Your task to perform on an android device: Search for Mexican restaurants on Maps Image 0: 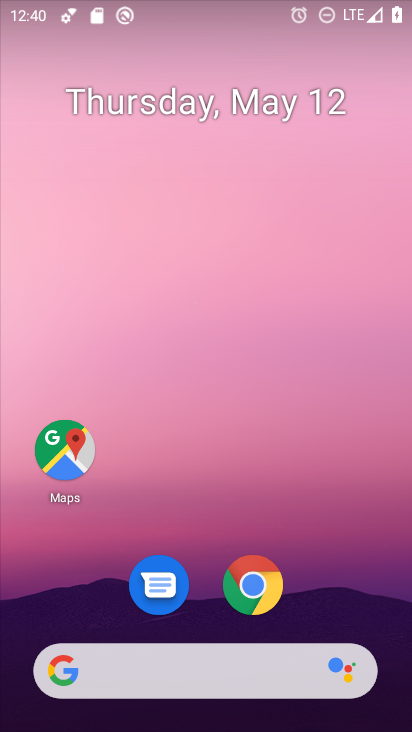
Step 0: click (53, 436)
Your task to perform on an android device: Search for Mexican restaurants on Maps Image 1: 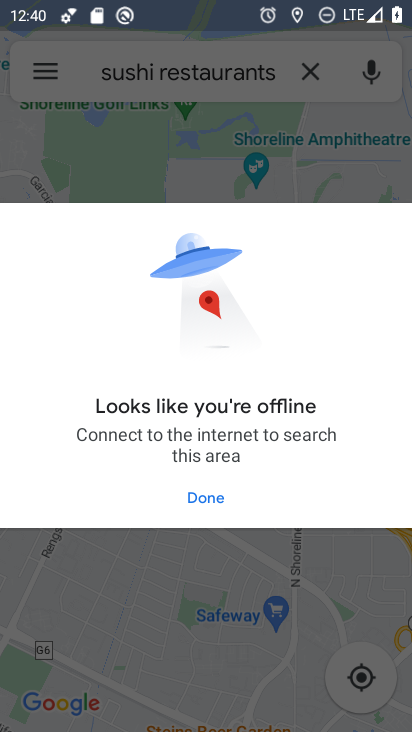
Step 1: click (205, 492)
Your task to perform on an android device: Search for Mexican restaurants on Maps Image 2: 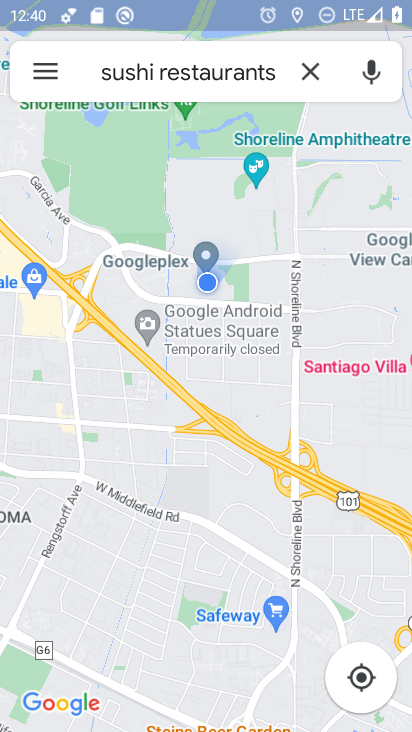
Step 2: click (307, 65)
Your task to perform on an android device: Search for Mexican restaurants on Maps Image 3: 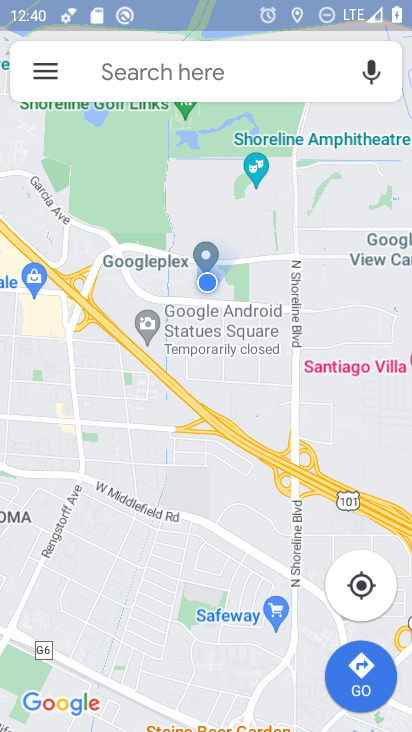
Step 3: click (237, 66)
Your task to perform on an android device: Search for Mexican restaurants on Maps Image 4: 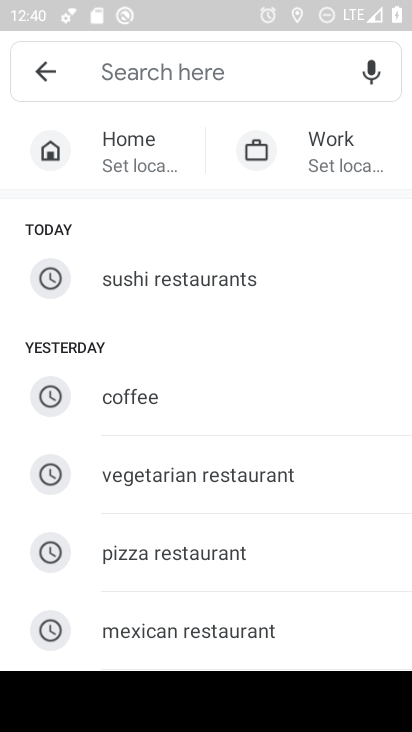
Step 4: click (186, 635)
Your task to perform on an android device: Search for Mexican restaurants on Maps Image 5: 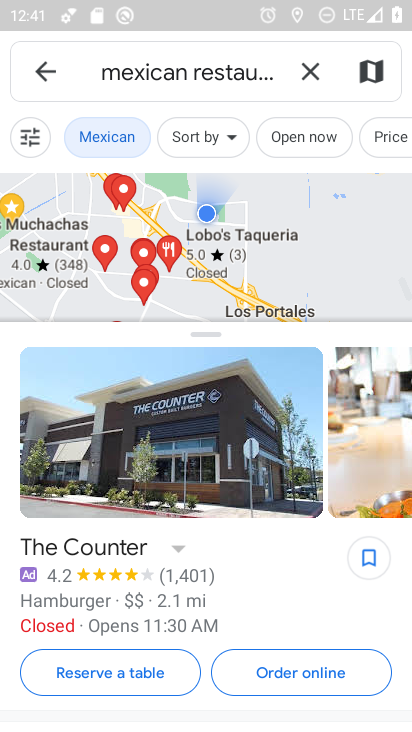
Step 5: task complete